Your task to perform on an android device: Go to Reddit.com Image 0: 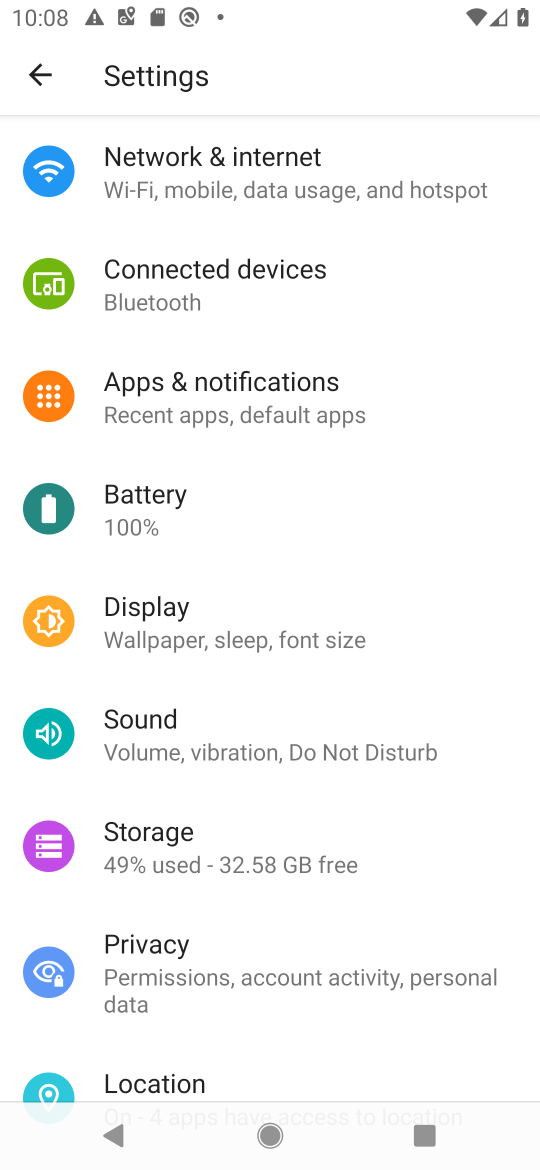
Step 0: press home button
Your task to perform on an android device: Go to Reddit.com Image 1: 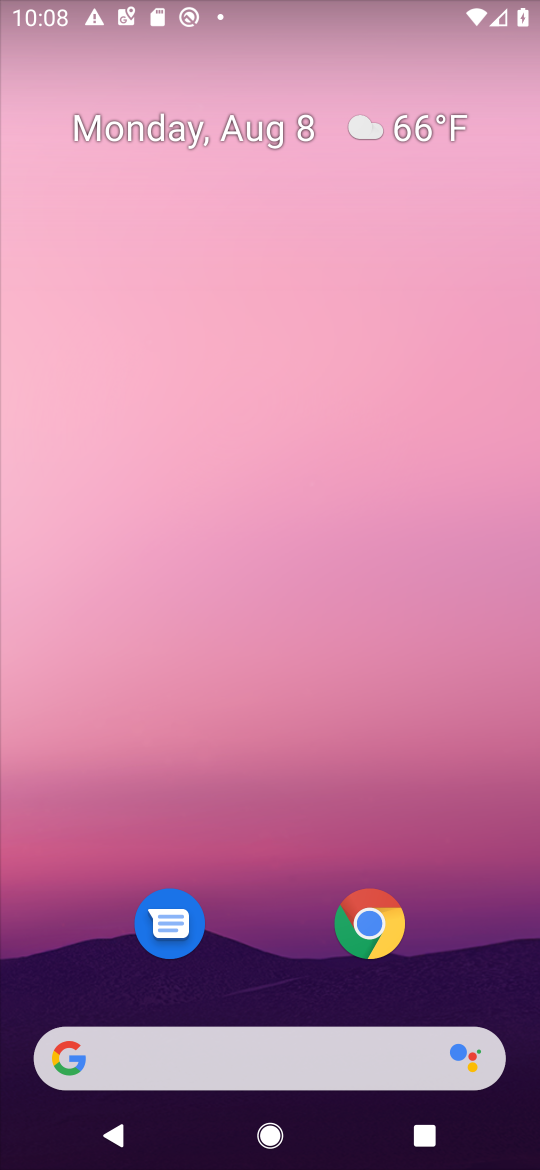
Step 1: click (124, 1072)
Your task to perform on an android device: Go to Reddit.com Image 2: 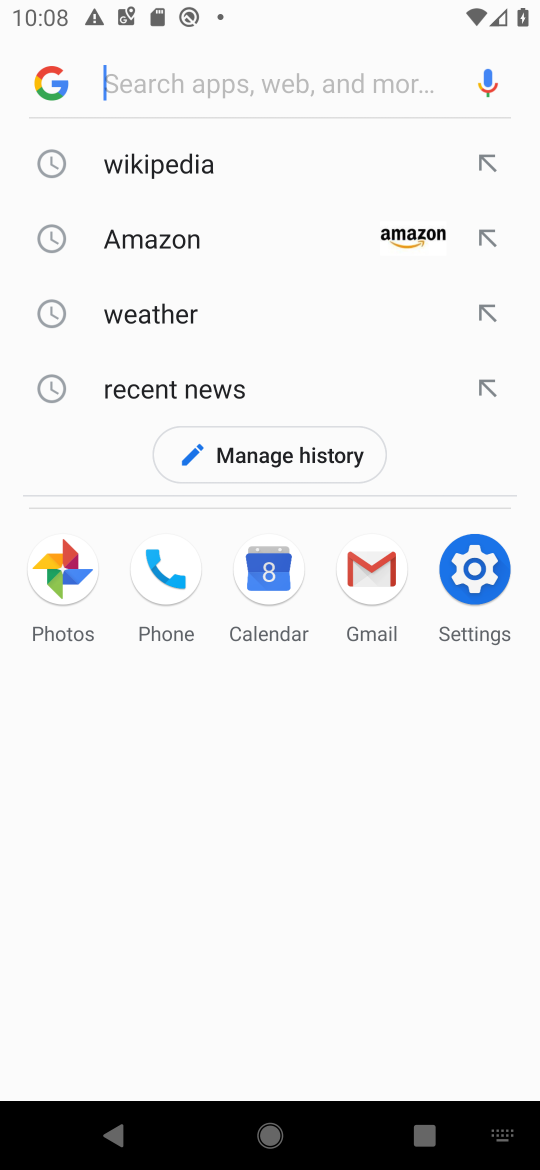
Step 2: type "Reddit.com"
Your task to perform on an android device: Go to Reddit.com Image 3: 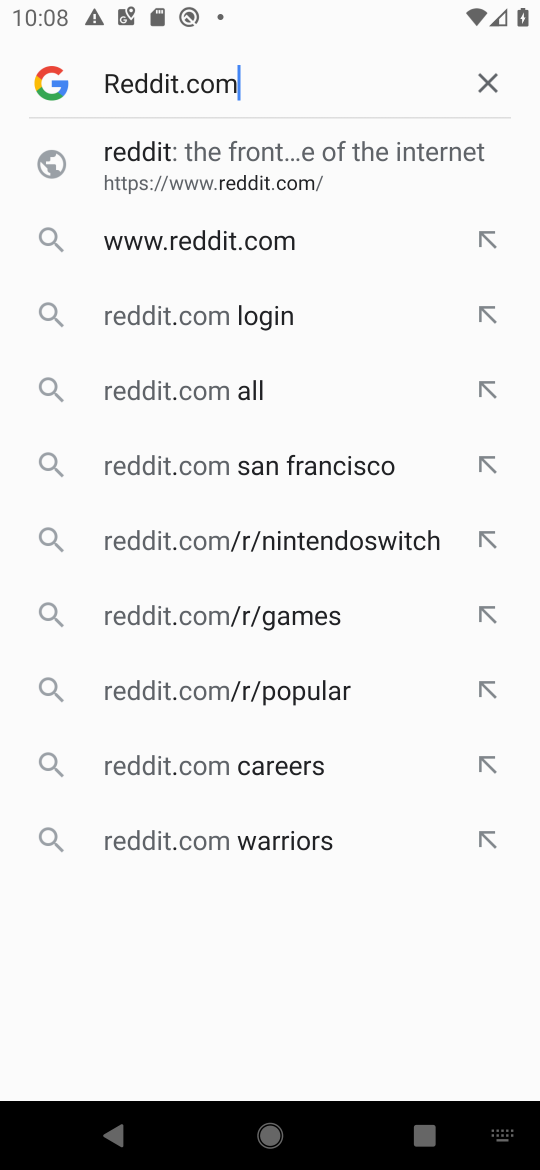
Step 3: click (172, 234)
Your task to perform on an android device: Go to Reddit.com Image 4: 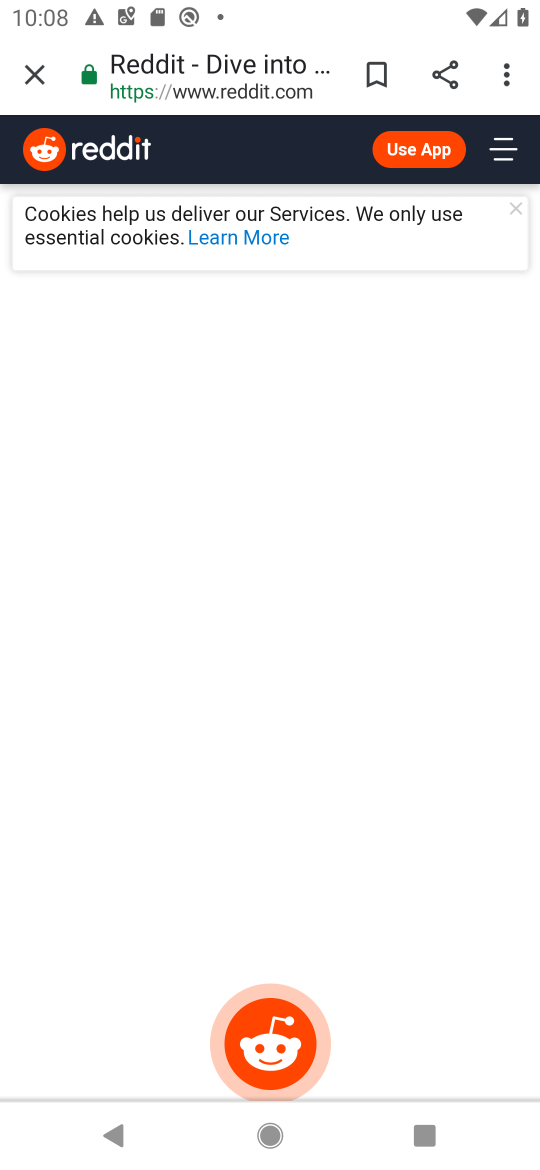
Step 4: task complete